Your task to perform on an android device: turn off javascript in the chrome app Image 0: 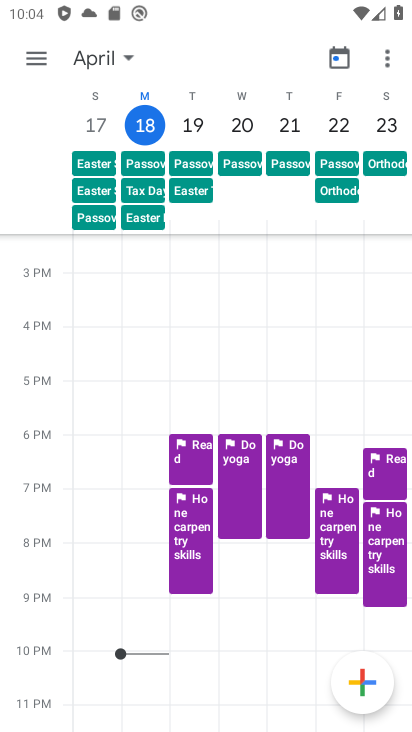
Step 0: press home button
Your task to perform on an android device: turn off javascript in the chrome app Image 1: 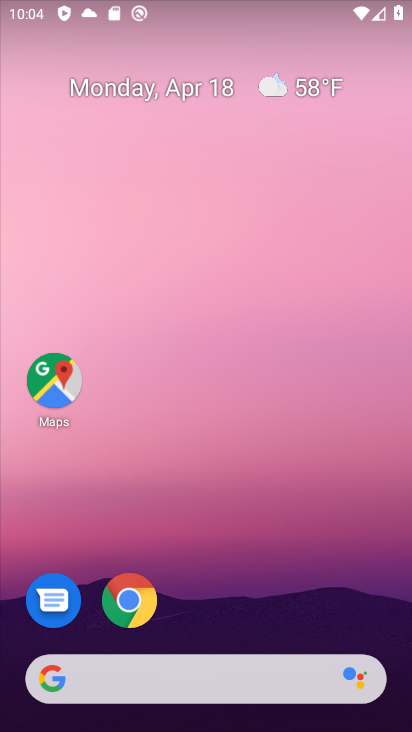
Step 1: drag from (214, 585) to (139, 7)
Your task to perform on an android device: turn off javascript in the chrome app Image 2: 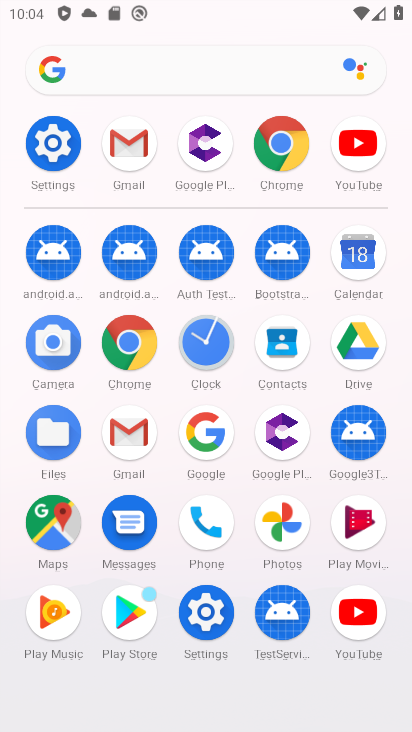
Step 2: click (281, 143)
Your task to perform on an android device: turn off javascript in the chrome app Image 3: 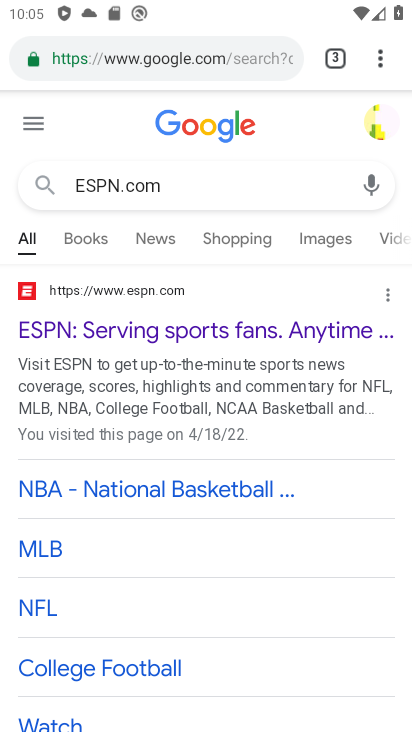
Step 3: click (378, 56)
Your task to perform on an android device: turn off javascript in the chrome app Image 4: 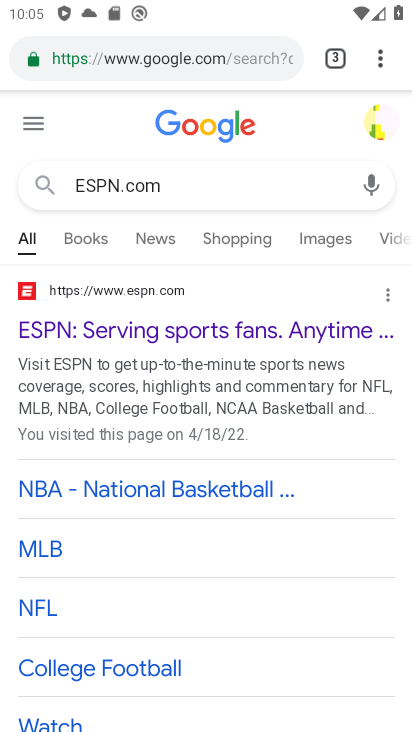
Step 4: click (380, 56)
Your task to perform on an android device: turn off javascript in the chrome app Image 5: 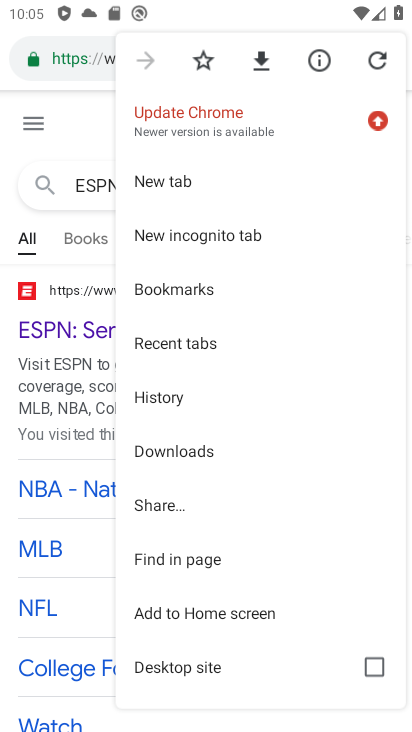
Step 5: drag from (209, 653) to (131, 97)
Your task to perform on an android device: turn off javascript in the chrome app Image 6: 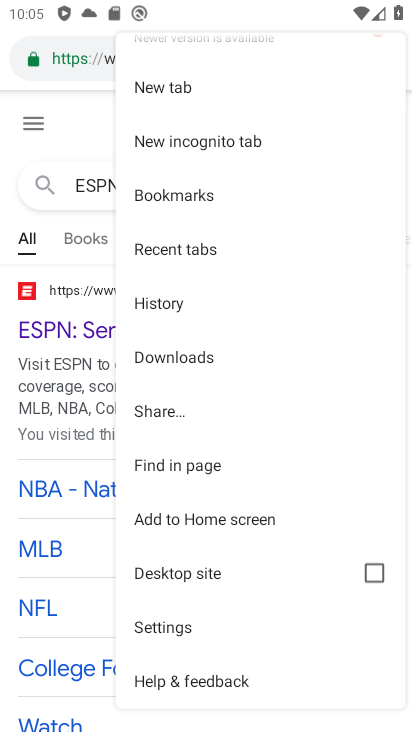
Step 6: click (173, 628)
Your task to perform on an android device: turn off javascript in the chrome app Image 7: 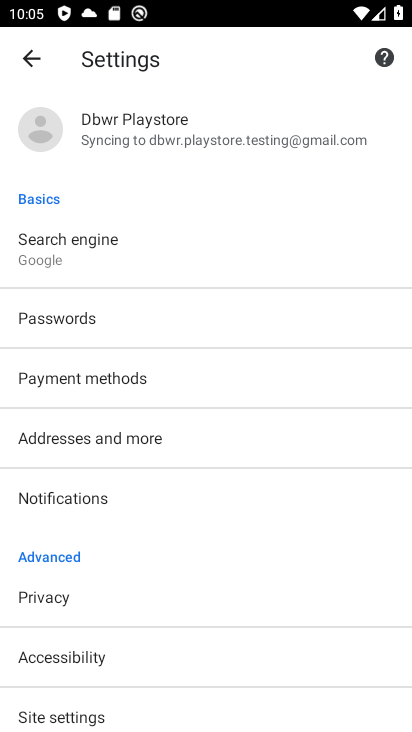
Step 7: drag from (224, 599) to (222, 234)
Your task to perform on an android device: turn off javascript in the chrome app Image 8: 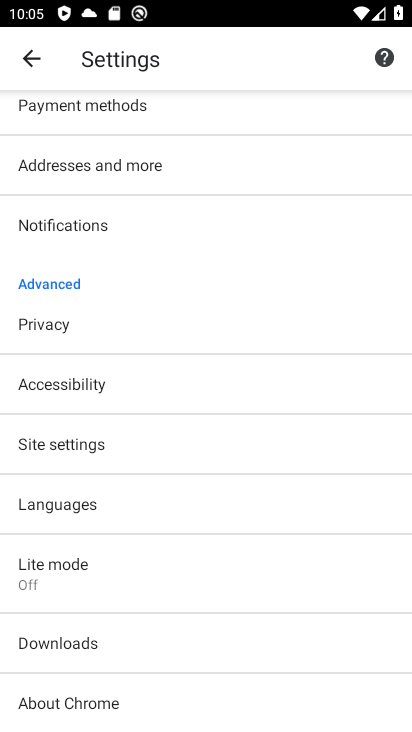
Step 8: click (74, 446)
Your task to perform on an android device: turn off javascript in the chrome app Image 9: 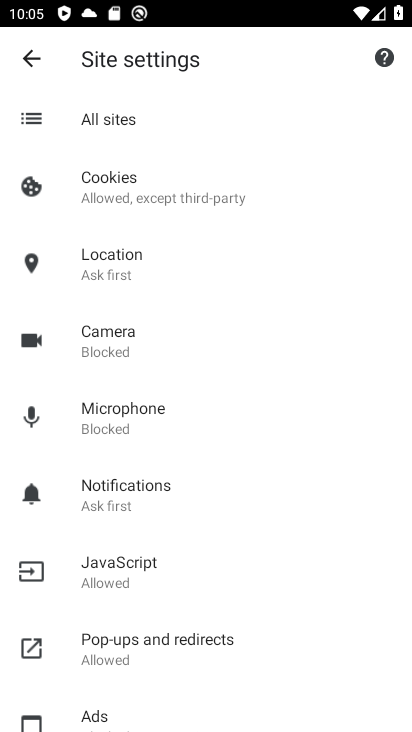
Step 9: click (130, 555)
Your task to perform on an android device: turn off javascript in the chrome app Image 10: 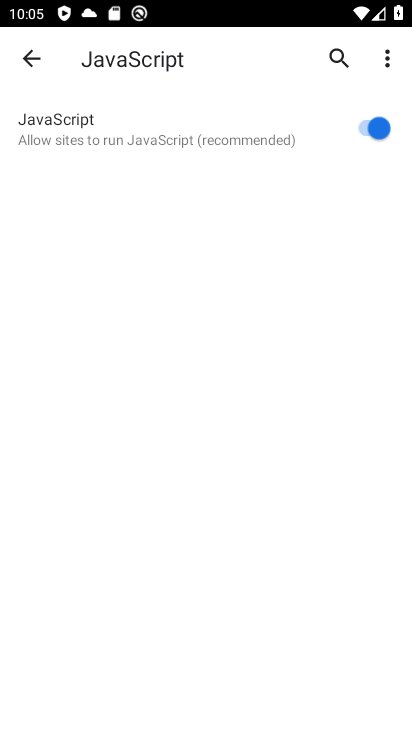
Step 10: click (375, 129)
Your task to perform on an android device: turn off javascript in the chrome app Image 11: 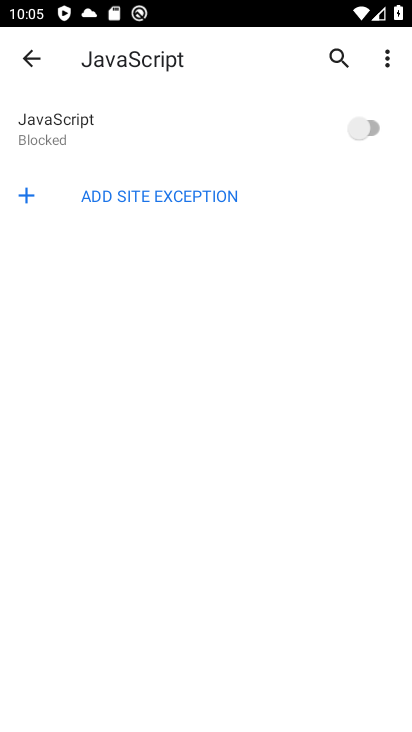
Step 11: task complete